Your task to perform on an android device: Go to CNN.com Image 0: 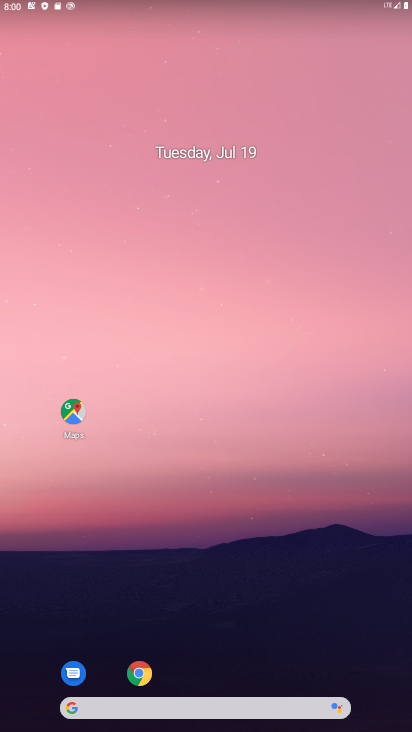
Step 0: drag from (380, 692) to (180, 18)
Your task to perform on an android device: Go to CNN.com Image 1: 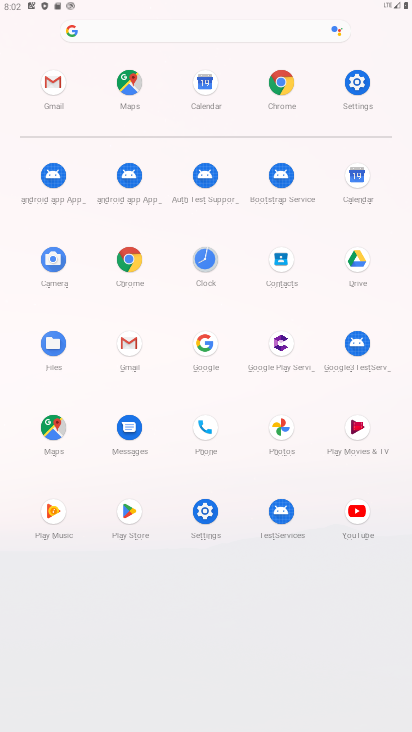
Step 1: click (201, 336)
Your task to perform on an android device: Go to CNN.com Image 2: 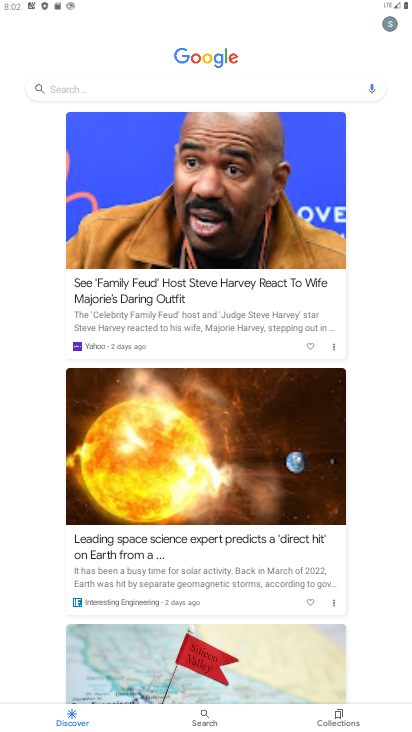
Step 2: click (81, 82)
Your task to perform on an android device: Go to CNN.com Image 3: 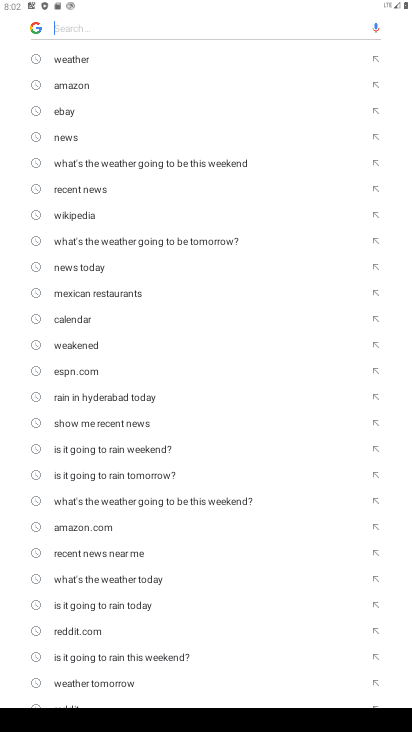
Step 3: type "CNN.com"
Your task to perform on an android device: Go to CNN.com Image 4: 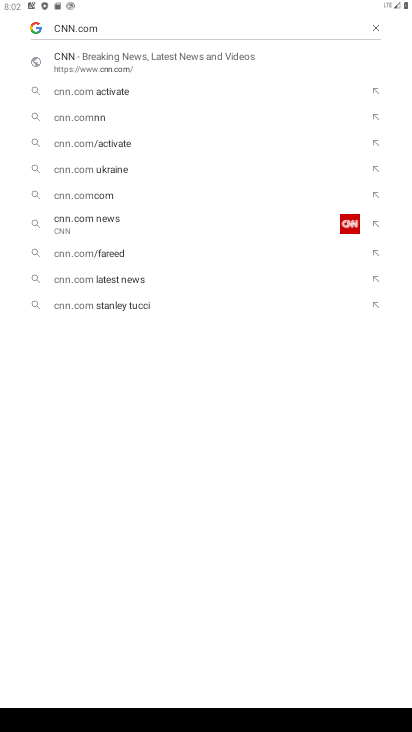
Step 4: click (128, 67)
Your task to perform on an android device: Go to CNN.com Image 5: 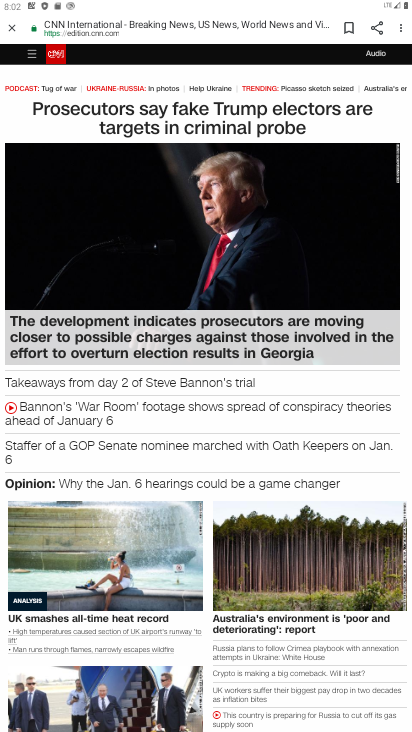
Step 5: task complete